Your task to perform on an android device: turn off sleep mode Image 0: 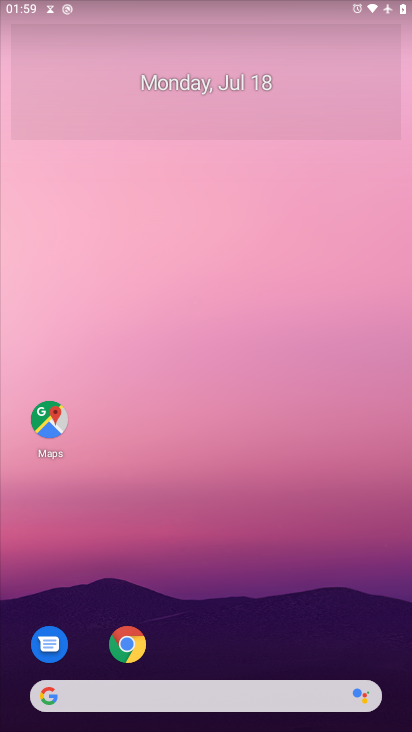
Step 0: press home button
Your task to perform on an android device: turn off sleep mode Image 1: 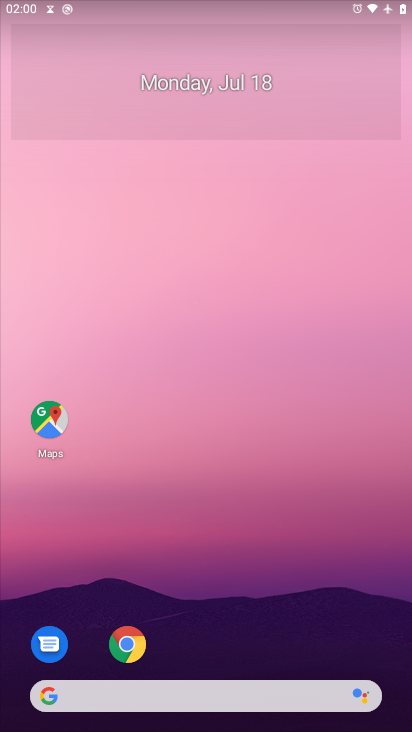
Step 1: drag from (223, 640) to (232, 43)
Your task to perform on an android device: turn off sleep mode Image 2: 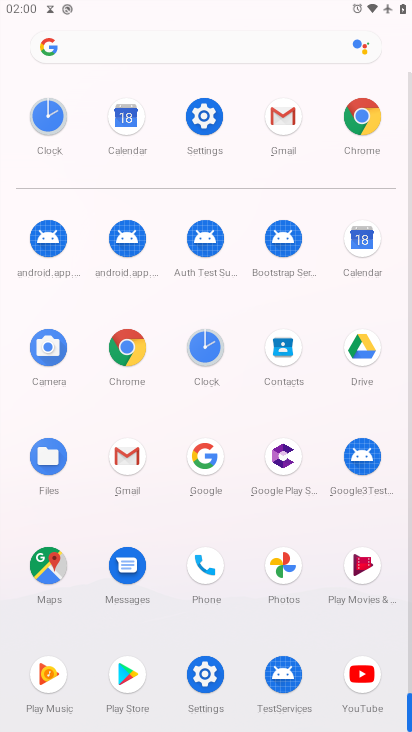
Step 2: click (198, 119)
Your task to perform on an android device: turn off sleep mode Image 3: 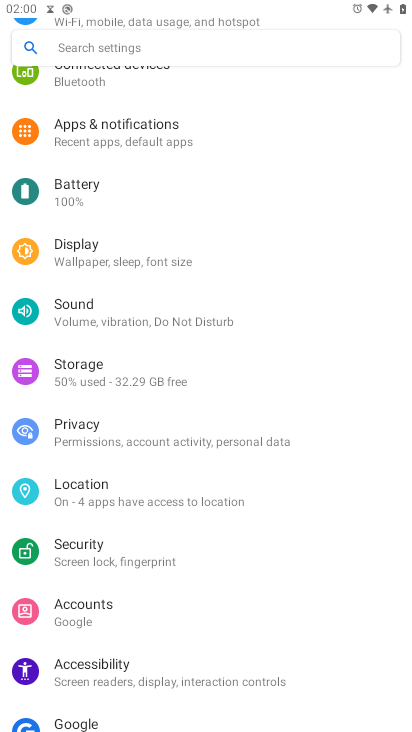
Step 3: click (78, 254)
Your task to perform on an android device: turn off sleep mode Image 4: 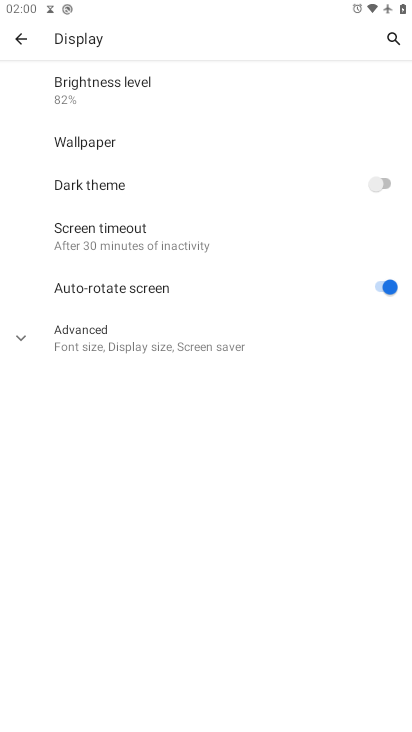
Step 4: task complete